Your task to perform on an android device: turn off picture-in-picture Image 0: 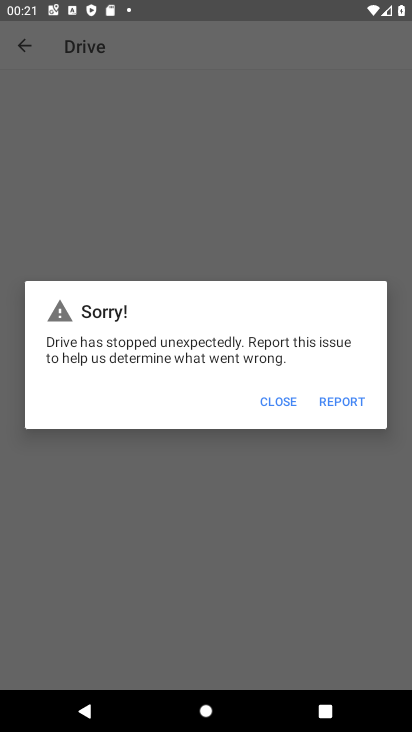
Step 0: press home button
Your task to perform on an android device: turn off picture-in-picture Image 1: 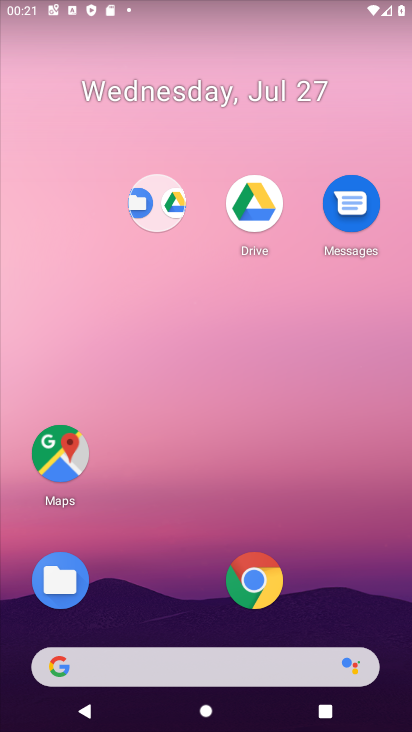
Step 1: click (247, 578)
Your task to perform on an android device: turn off picture-in-picture Image 2: 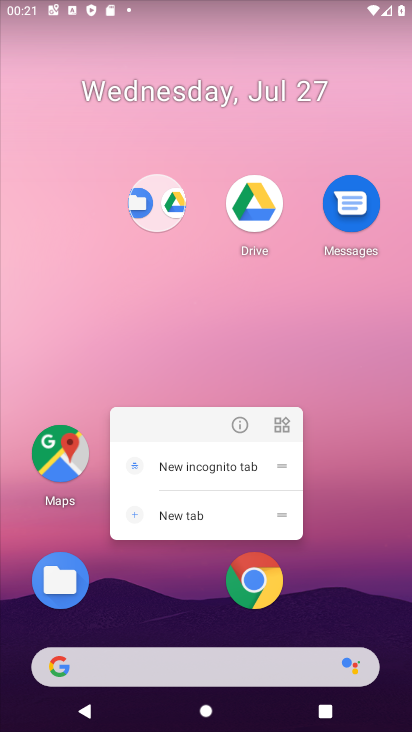
Step 2: click (240, 424)
Your task to perform on an android device: turn off picture-in-picture Image 3: 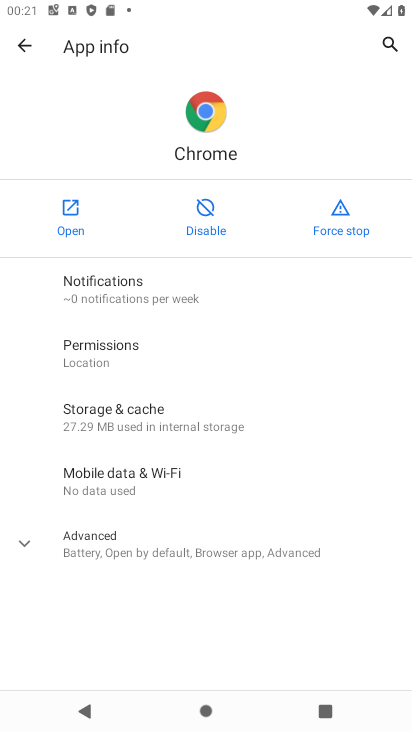
Step 3: click (169, 554)
Your task to perform on an android device: turn off picture-in-picture Image 4: 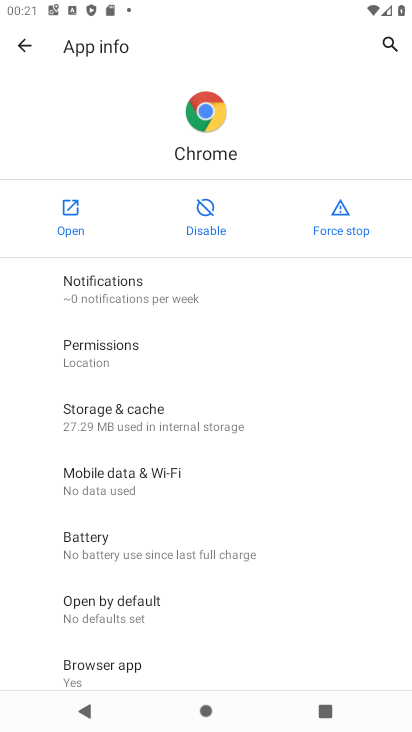
Step 4: drag from (143, 679) to (173, 262)
Your task to perform on an android device: turn off picture-in-picture Image 5: 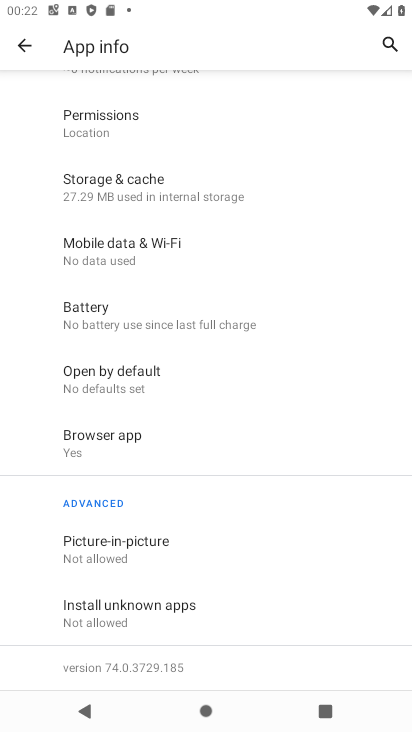
Step 5: click (96, 546)
Your task to perform on an android device: turn off picture-in-picture Image 6: 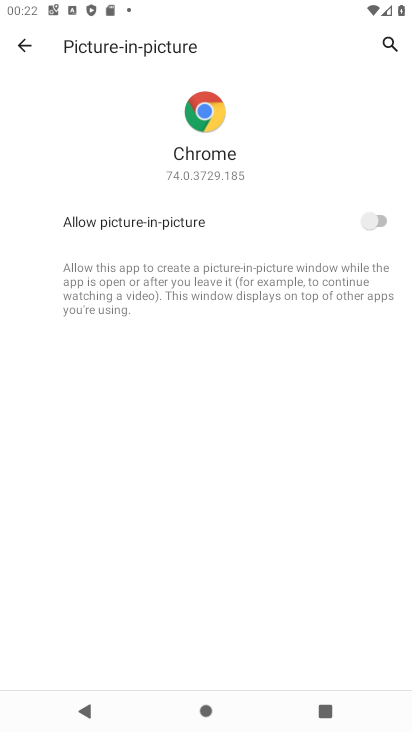
Step 6: task complete